Your task to perform on an android device: turn off data saver in the chrome app Image 0: 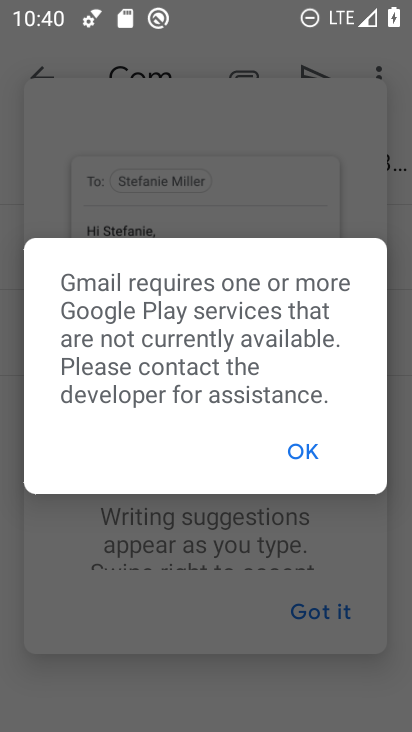
Step 0: press home button
Your task to perform on an android device: turn off data saver in the chrome app Image 1: 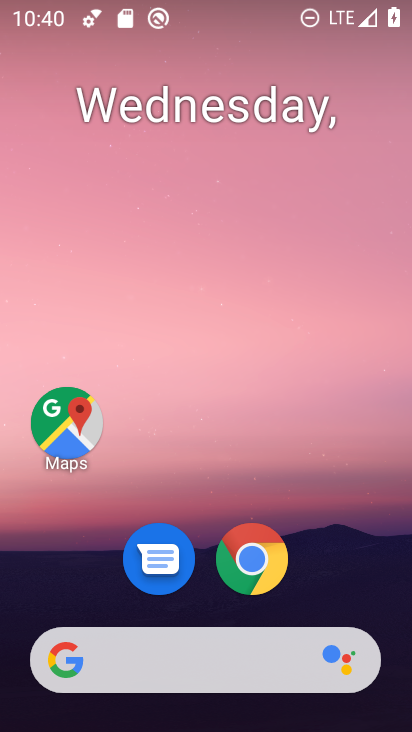
Step 1: drag from (355, 570) to (369, 128)
Your task to perform on an android device: turn off data saver in the chrome app Image 2: 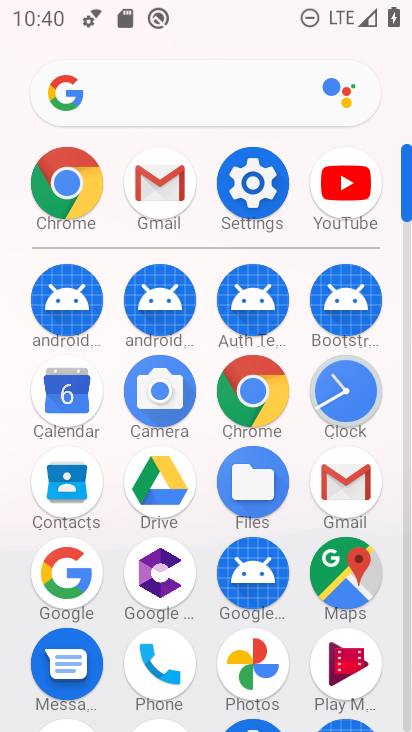
Step 2: click (263, 388)
Your task to perform on an android device: turn off data saver in the chrome app Image 3: 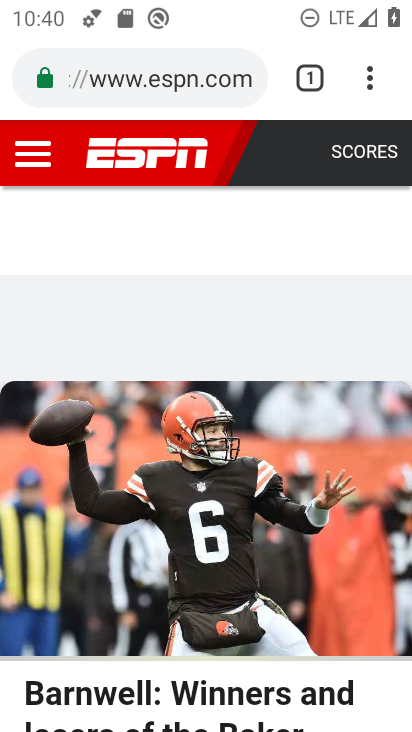
Step 3: click (368, 86)
Your task to perform on an android device: turn off data saver in the chrome app Image 4: 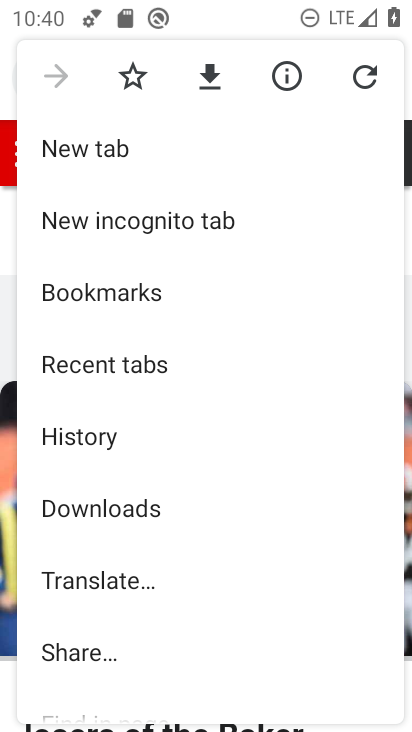
Step 4: drag from (262, 410) to (280, 280)
Your task to perform on an android device: turn off data saver in the chrome app Image 5: 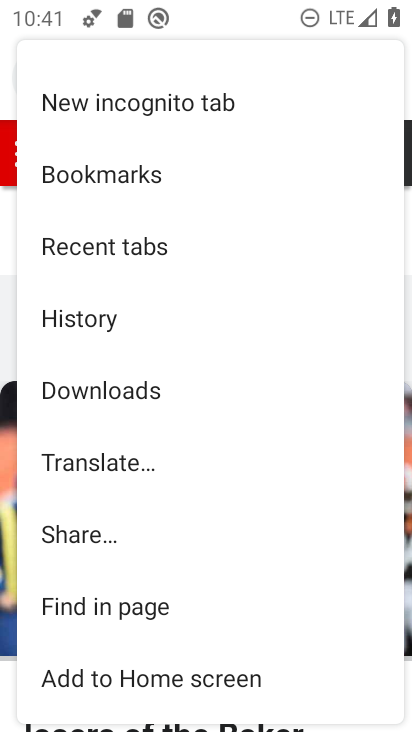
Step 5: drag from (296, 435) to (295, 268)
Your task to perform on an android device: turn off data saver in the chrome app Image 6: 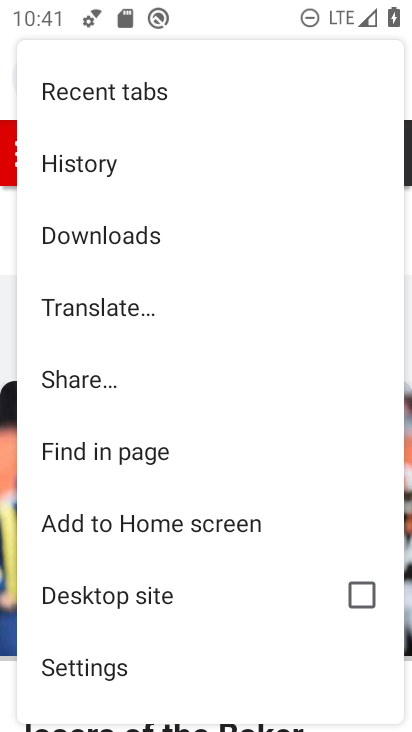
Step 6: drag from (292, 417) to (265, 248)
Your task to perform on an android device: turn off data saver in the chrome app Image 7: 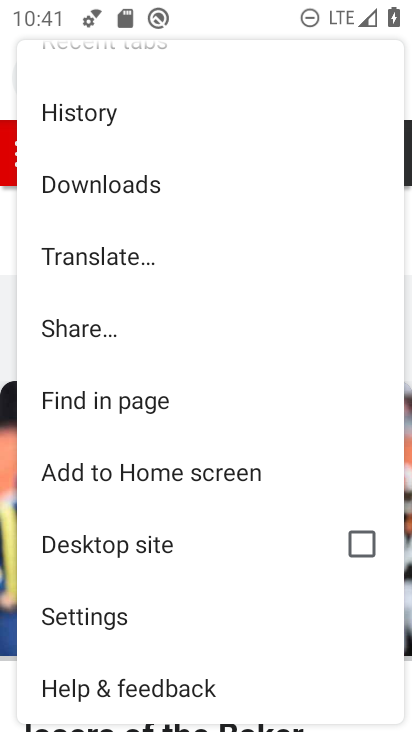
Step 7: drag from (272, 400) to (271, 207)
Your task to perform on an android device: turn off data saver in the chrome app Image 8: 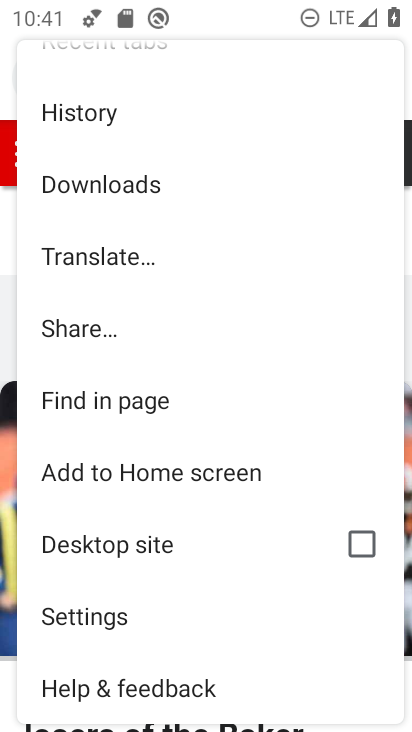
Step 8: drag from (277, 189) to (283, 423)
Your task to perform on an android device: turn off data saver in the chrome app Image 9: 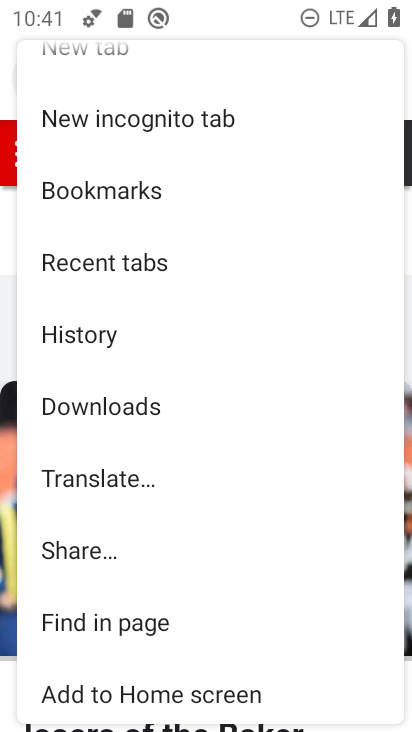
Step 9: drag from (294, 201) to (296, 396)
Your task to perform on an android device: turn off data saver in the chrome app Image 10: 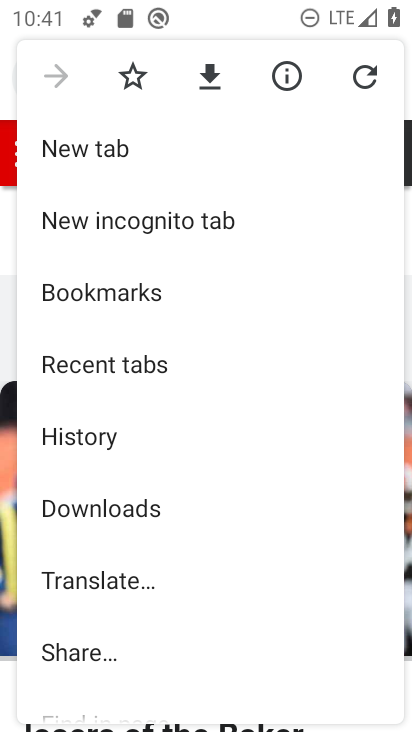
Step 10: drag from (302, 248) to (338, 420)
Your task to perform on an android device: turn off data saver in the chrome app Image 11: 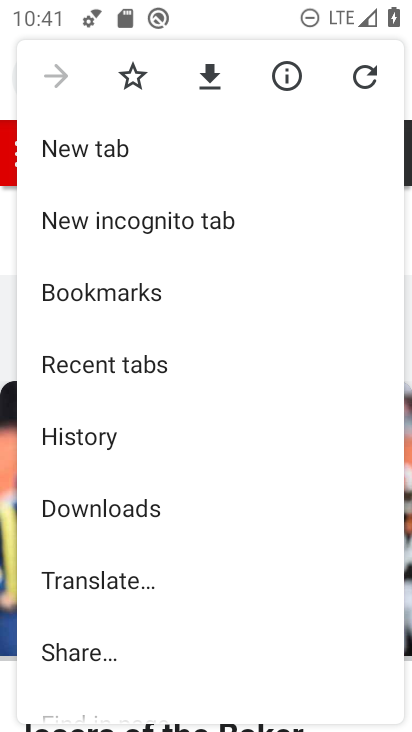
Step 11: drag from (318, 438) to (321, 200)
Your task to perform on an android device: turn off data saver in the chrome app Image 12: 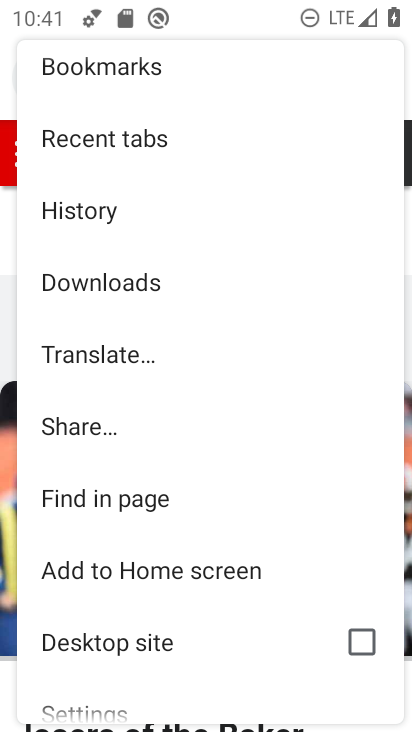
Step 12: drag from (298, 566) to (304, 275)
Your task to perform on an android device: turn off data saver in the chrome app Image 13: 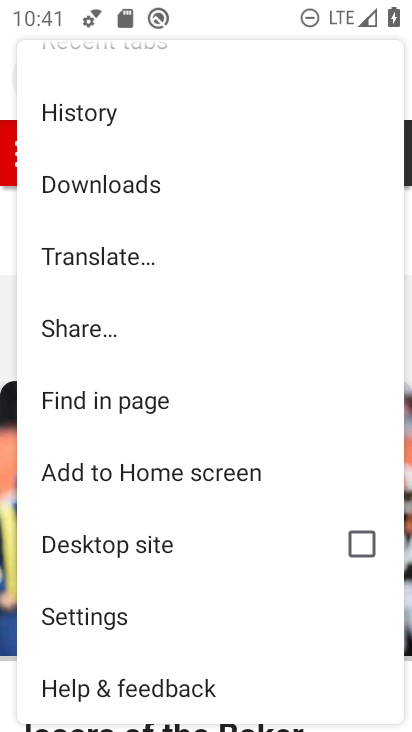
Step 13: click (195, 624)
Your task to perform on an android device: turn off data saver in the chrome app Image 14: 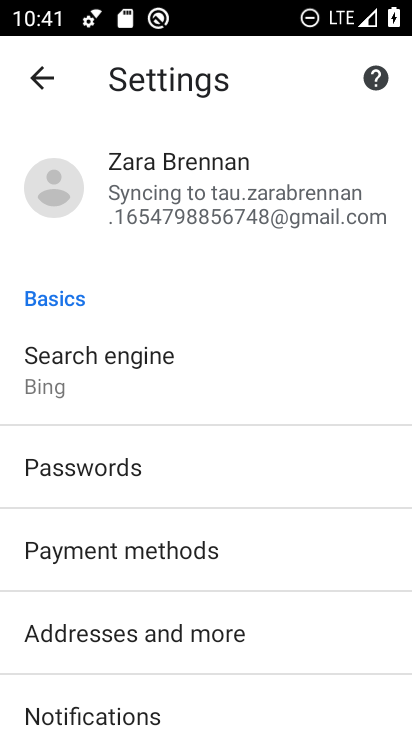
Step 14: drag from (307, 524) to (310, 348)
Your task to perform on an android device: turn off data saver in the chrome app Image 15: 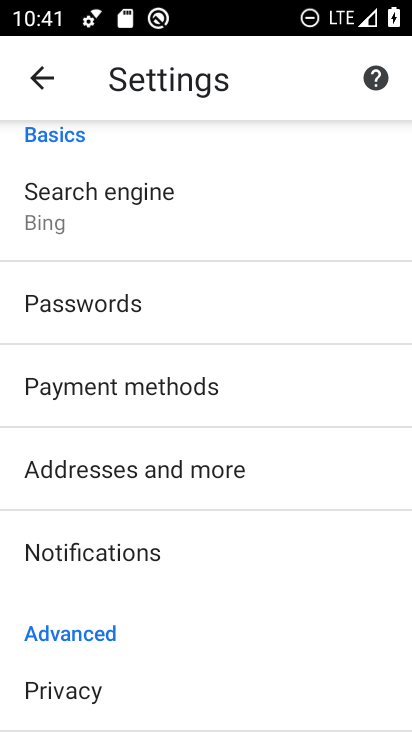
Step 15: drag from (309, 530) to (311, 365)
Your task to perform on an android device: turn off data saver in the chrome app Image 16: 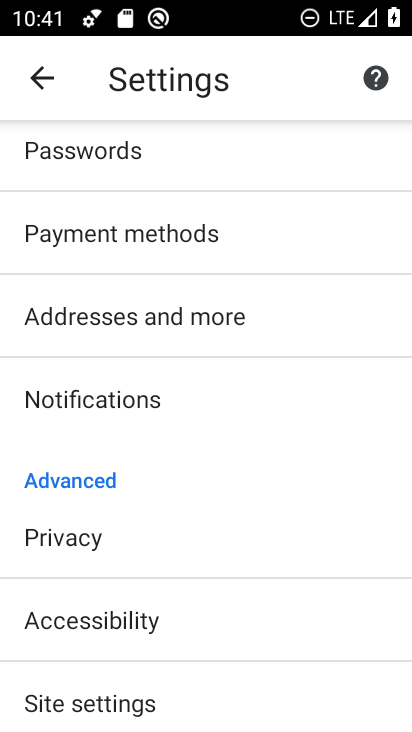
Step 16: drag from (310, 559) to (312, 392)
Your task to perform on an android device: turn off data saver in the chrome app Image 17: 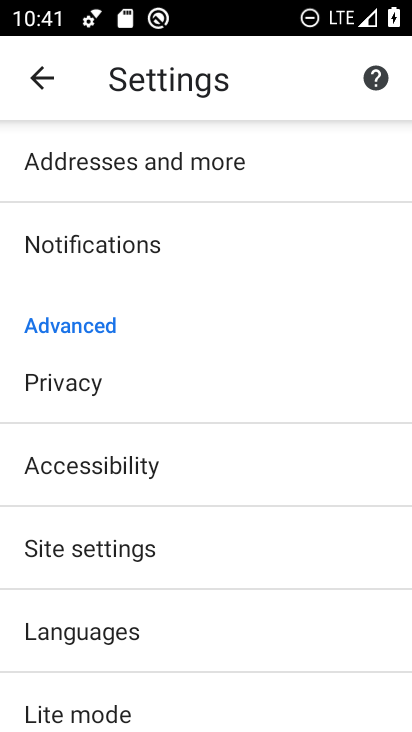
Step 17: drag from (306, 568) to (307, 461)
Your task to perform on an android device: turn off data saver in the chrome app Image 18: 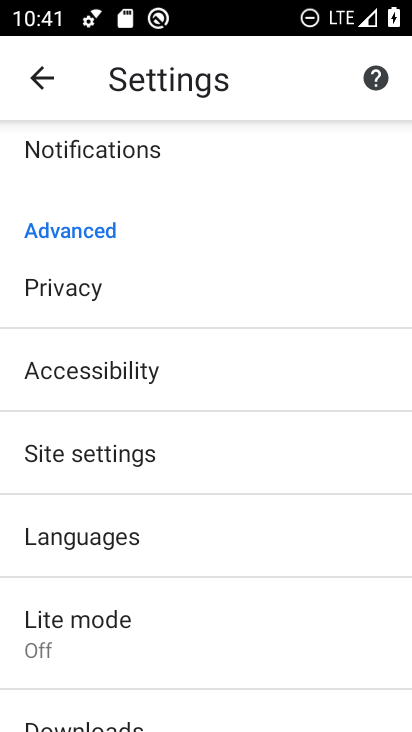
Step 18: click (312, 628)
Your task to perform on an android device: turn off data saver in the chrome app Image 19: 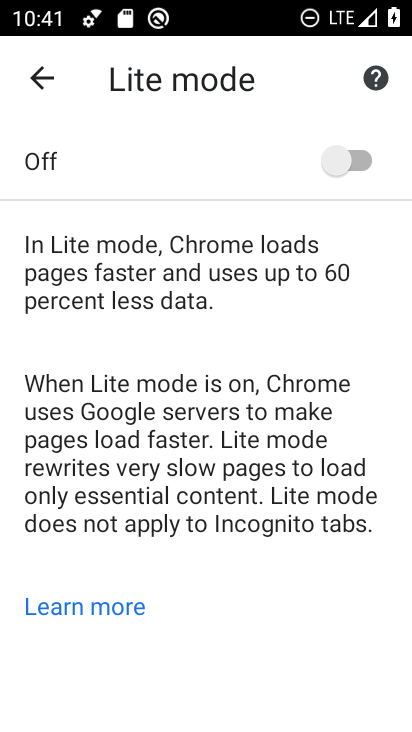
Step 19: task complete